Your task to perform on an android device: install app "Skype" Image 0: 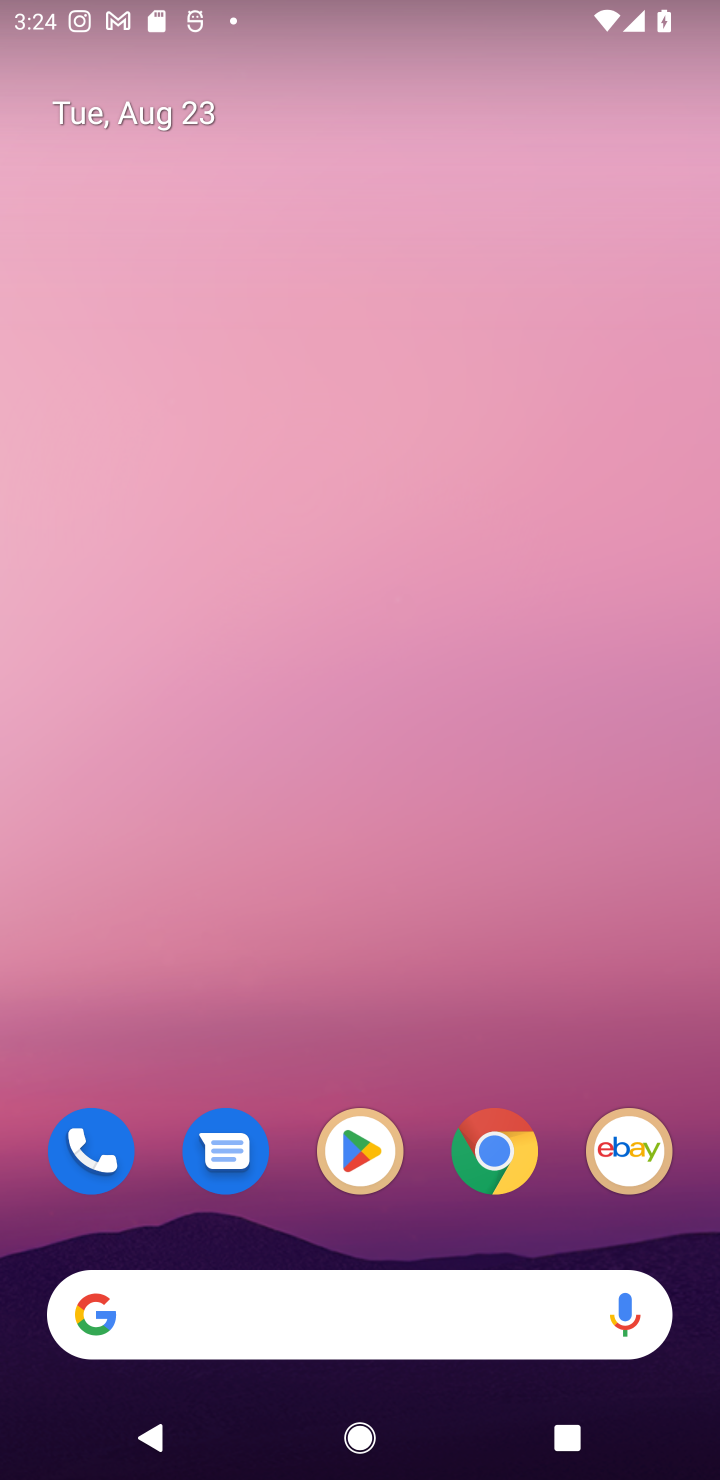
Step 0: press home button
Your task to perform on an android device: install app "Skype" Image 1: 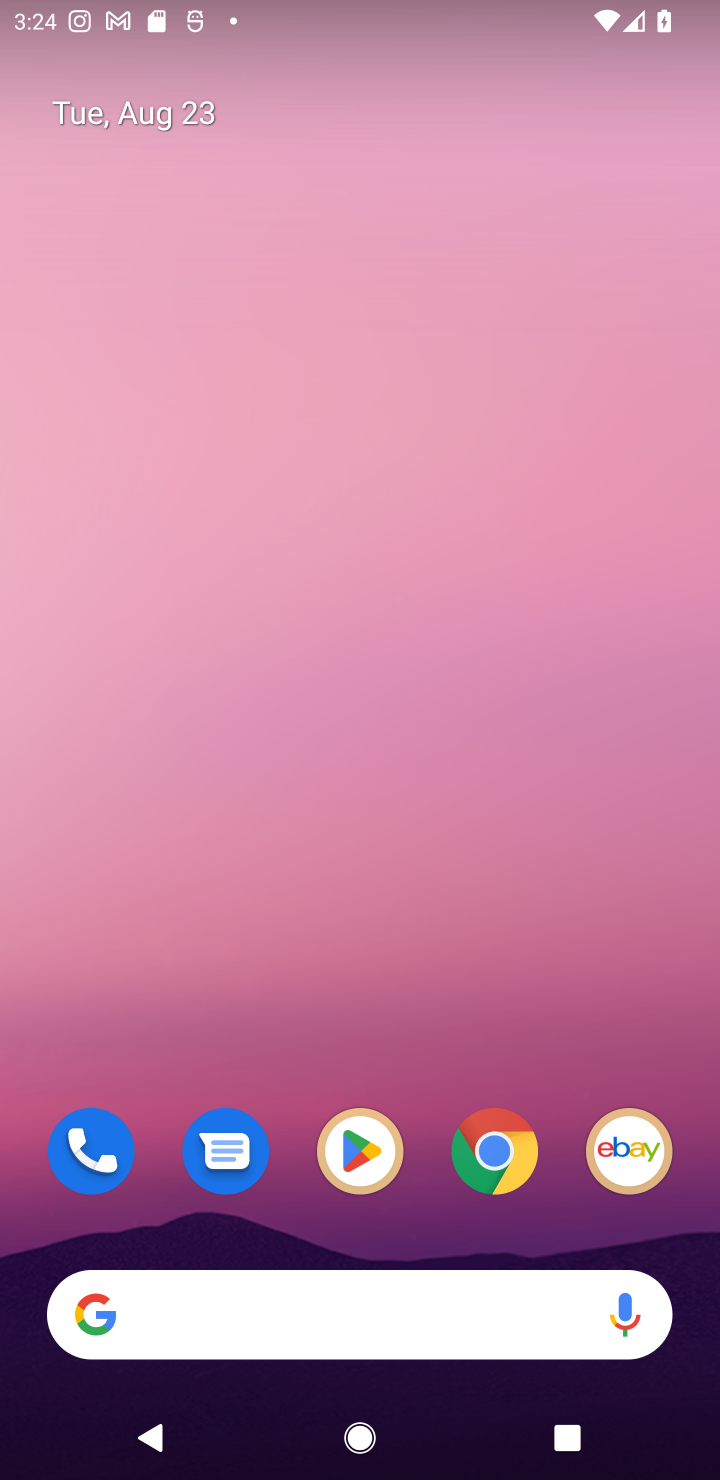
Step 1: click (364, 1140)
Your task to perform on an android device: install app "Skype" Image 2: 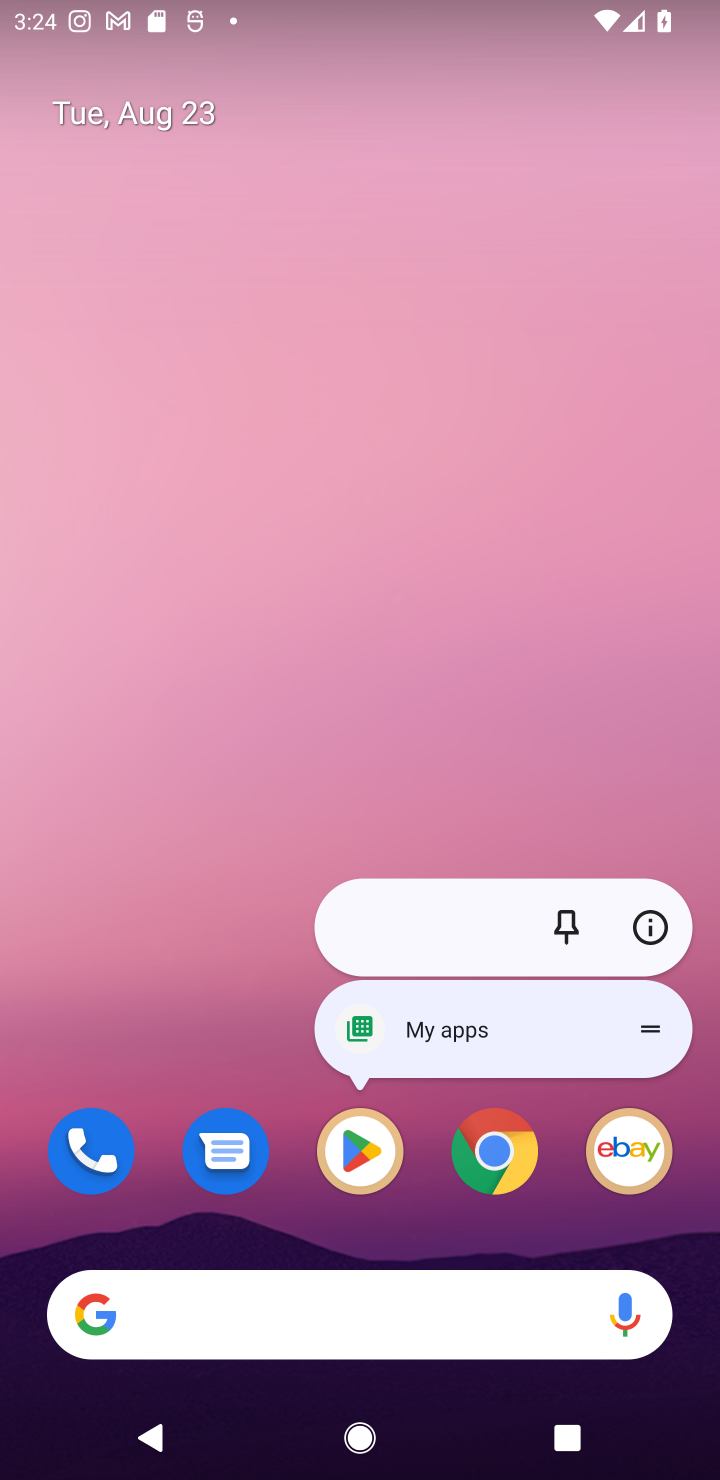
Step 2: click (369, 1161)
Your task to perform on an android device: install app "Skype" Image 3: 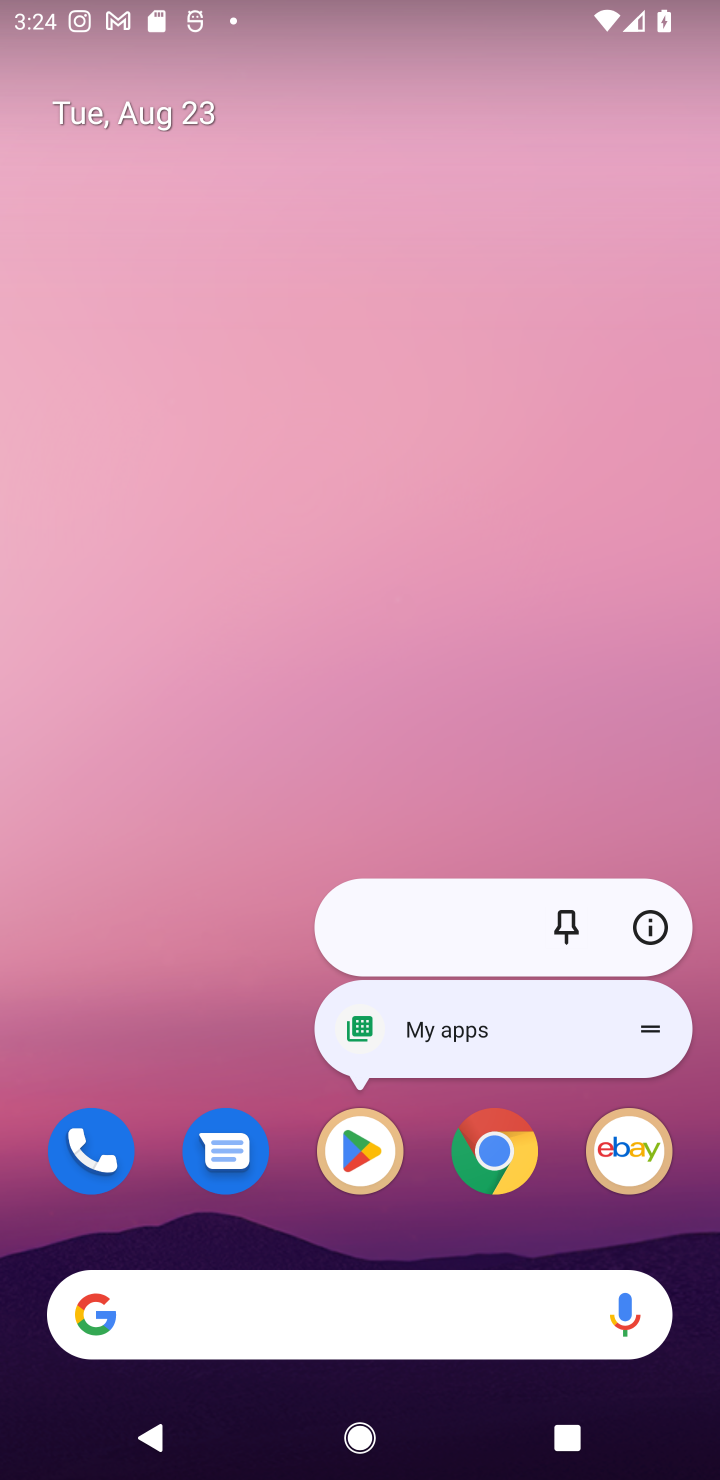
Step 3: click (369, 1161)
Your task to perform on an android device: install app "Skype" Image 4: 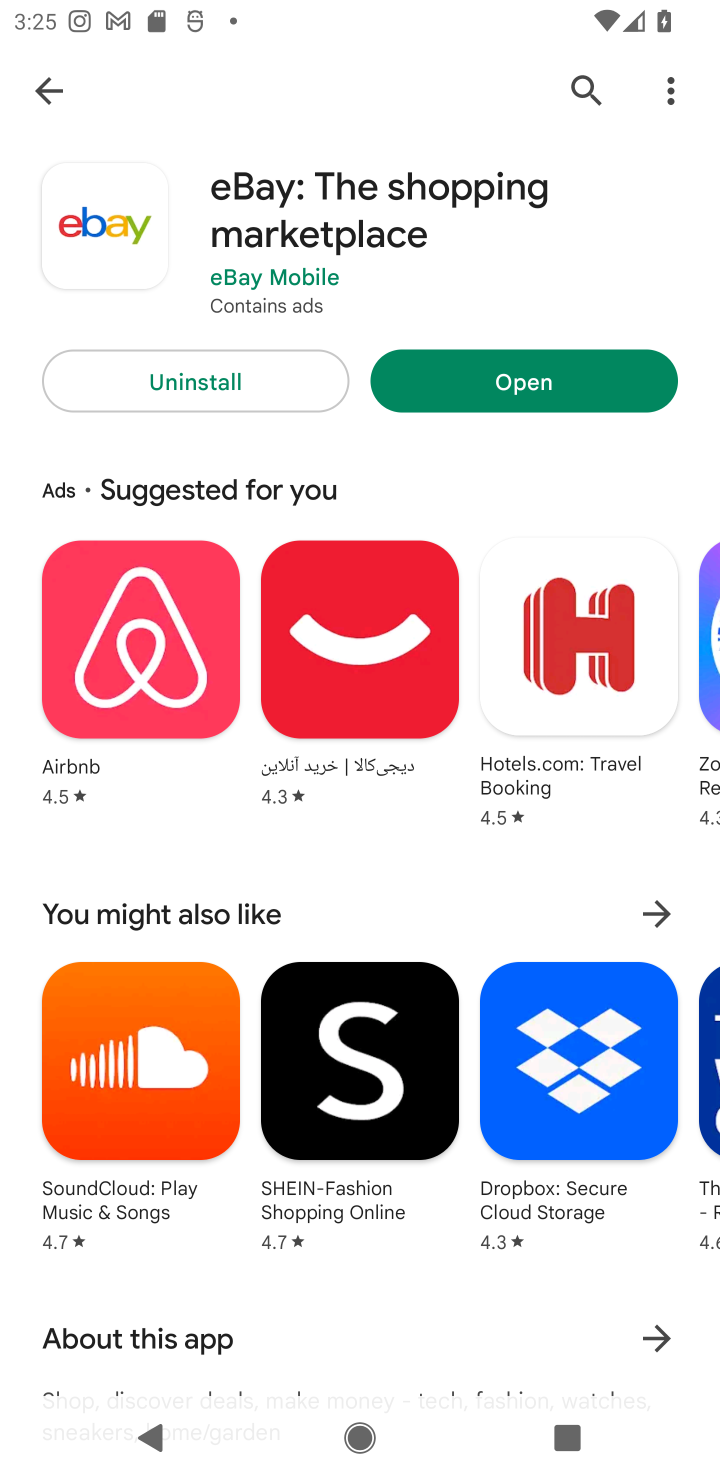
Step 4: click (587, 81)
Your task to perform on an android device: install app "Skype" Image 5: 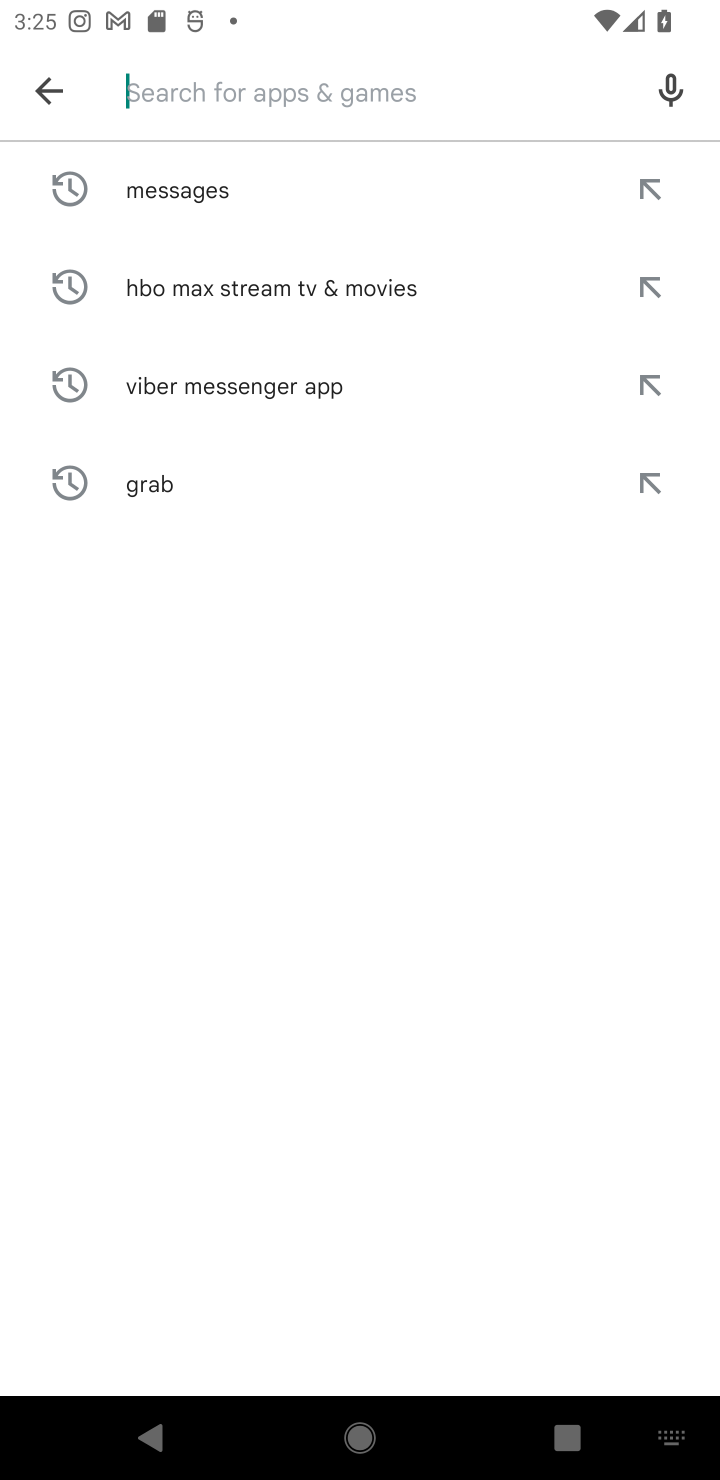
Step 5: type "Skype"
Your task to perform on an android device: install app "Skype" Image 6: 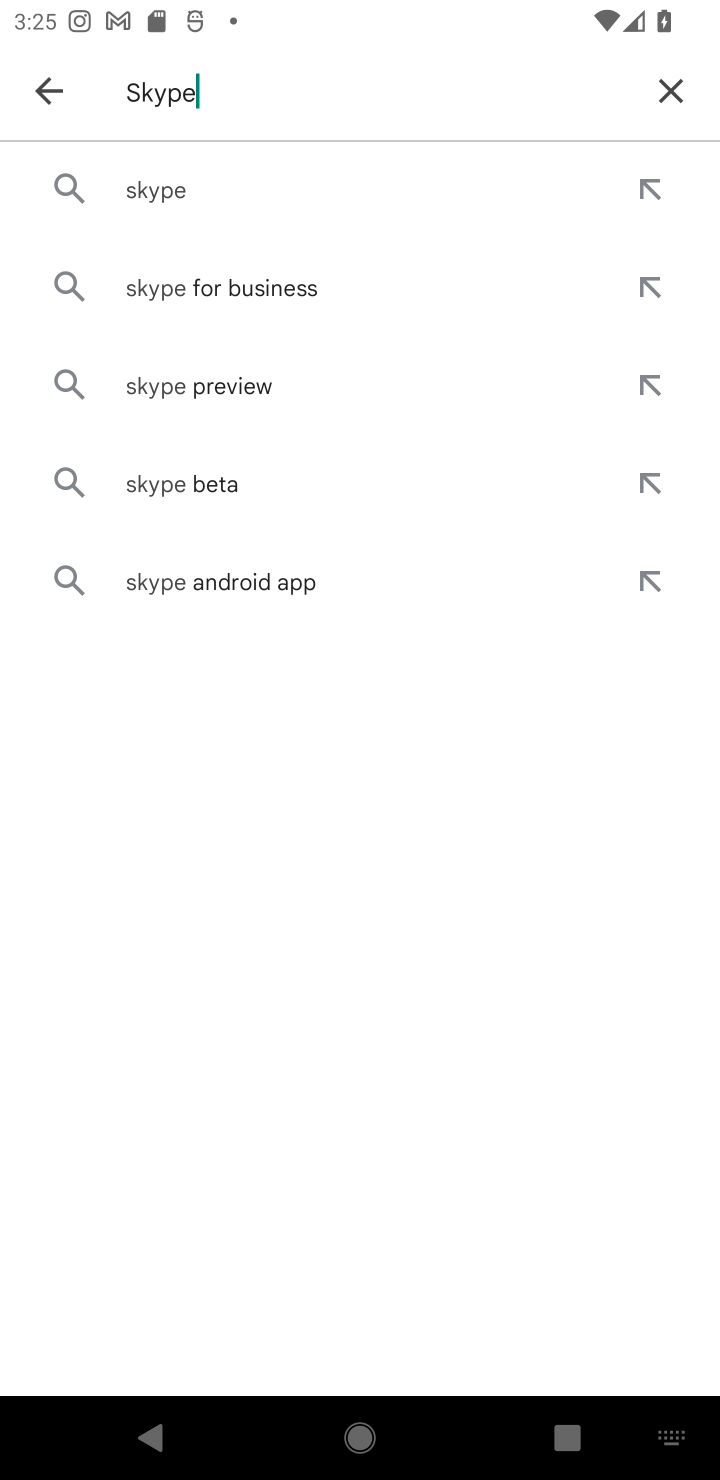
Step 6: click (165, 176)
Your task to perform on an android device: install app "Skype" Image 7: 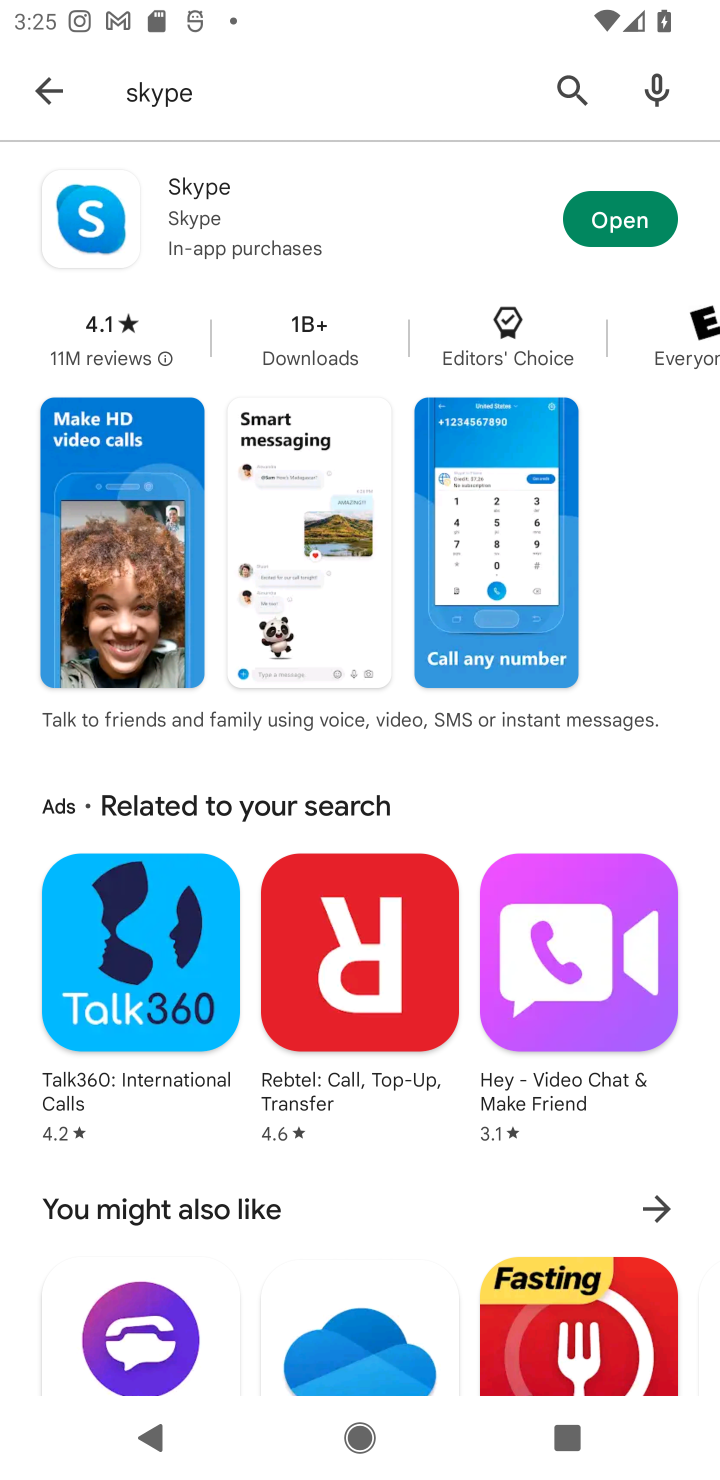
Step 7: task complete